Your task to perform on an android device: Search for razer blade on newegg, select the first entry, and add it to the cart. Image 0: 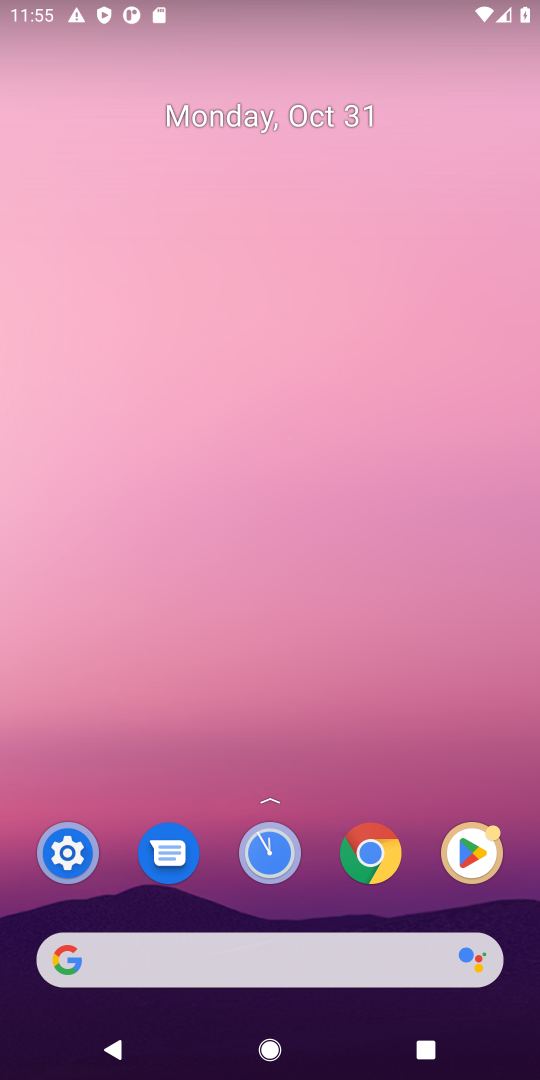
Step 0: click (224, 971)
Your task to perform on an android device: Search for razer blade on newegg, select the first entry, and add it to the cart. Image 1: 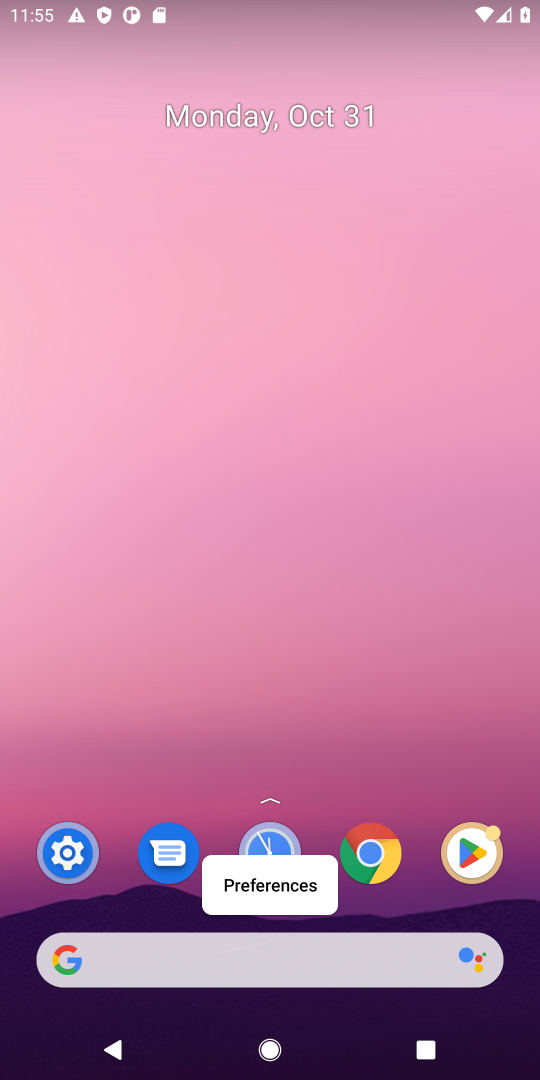
Step 1: click (224, 971)
Your task to perform on an android device: Search for razer blade on newegg, select the first entry, and add it to the cart. Image 2: 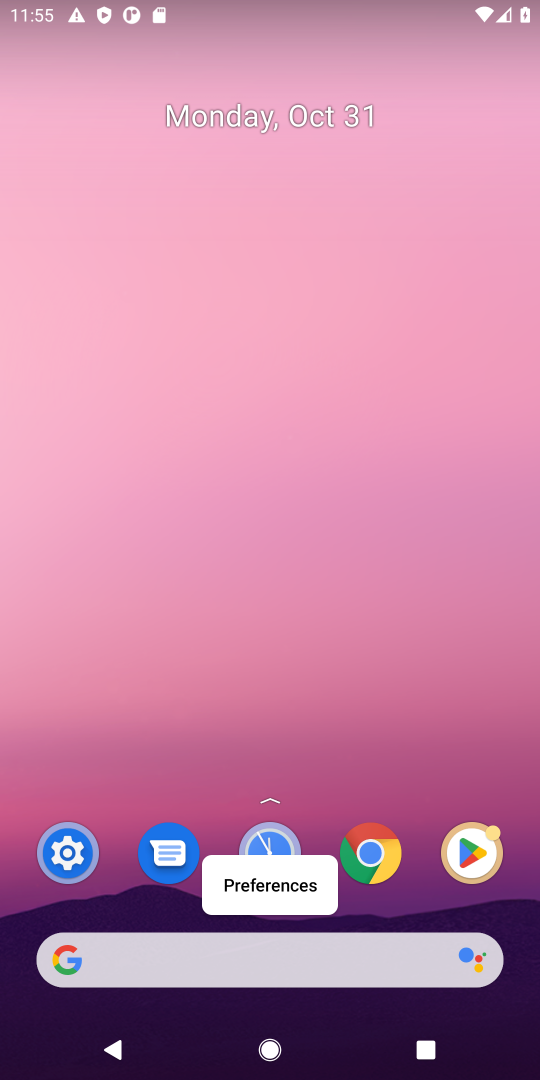
Step 2: click (224, 971)
Your task to perform on an android device: Search for razer blade on newegg, select the first entry, and add it to the cart. Image 3: 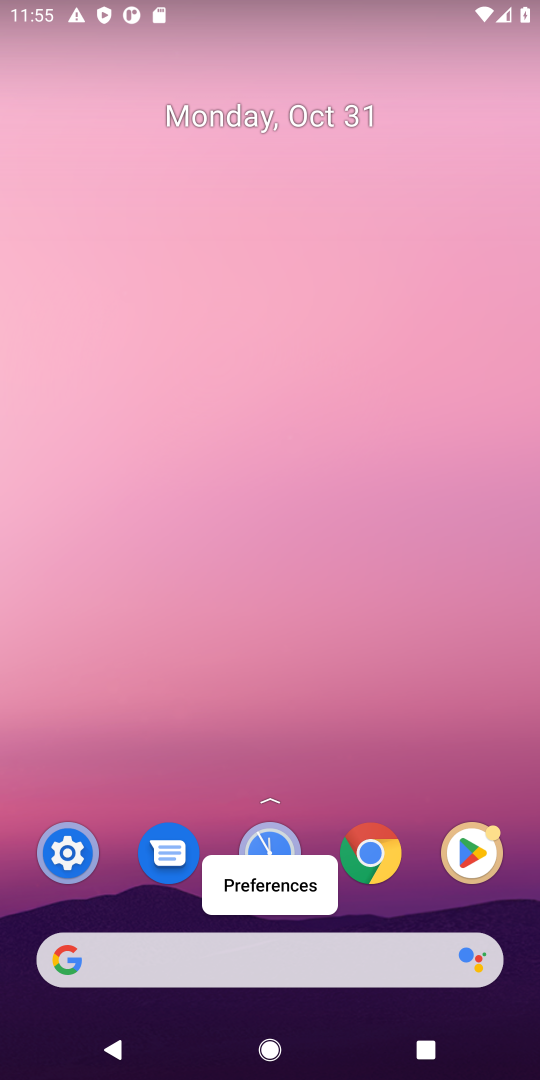
Step 3: click (224, 959)
Your task to perform on an android device: Search for razer blade on newegg, select the first entry, and add it to the cart. Image 4: 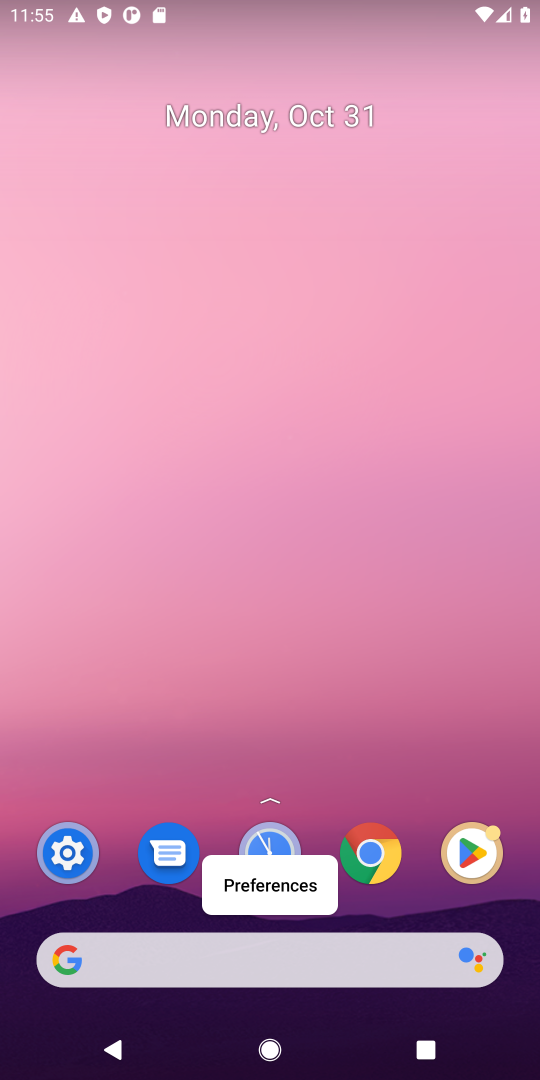
Step 4: click (224, 959)
Your task to perform on an android device: Search for razer blade on newegg, select the first entry, and add it to the cart. Image 5: 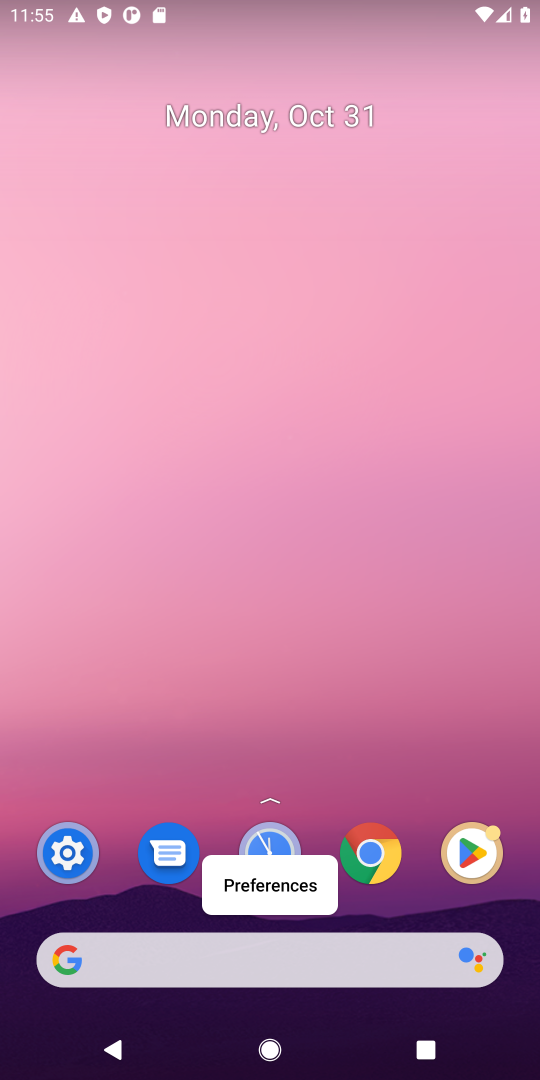
Step 5: click (226, 957)
Your task to perform on an android device: Search for razer blade on newegg, select the first entry, and add it to the cart. Image 6: 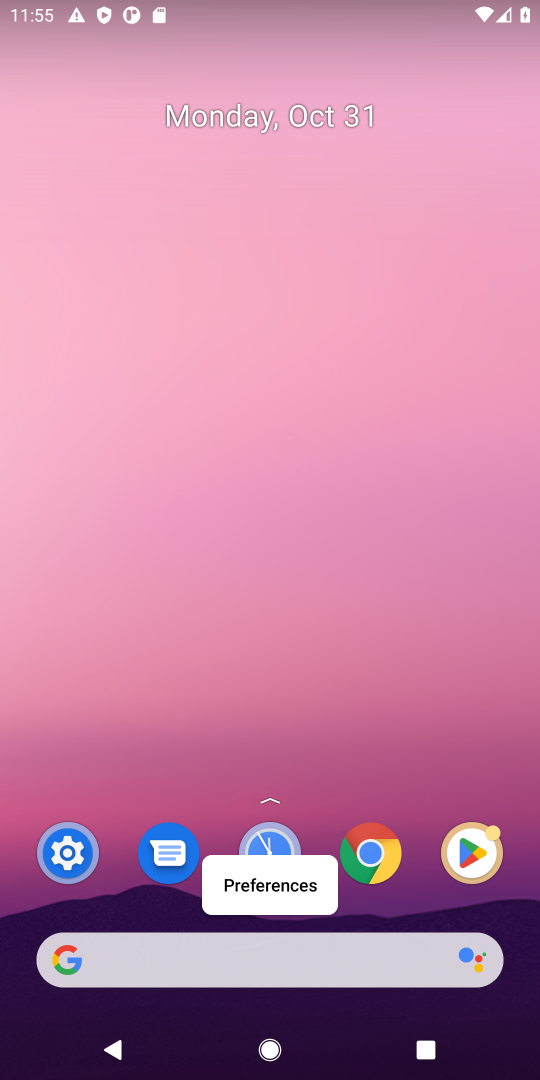
Step 6: click (160, 972)
Your task to perform on an android device: Search for razer blade on newegg, select the first entry, and add it to the cart. Image 7: 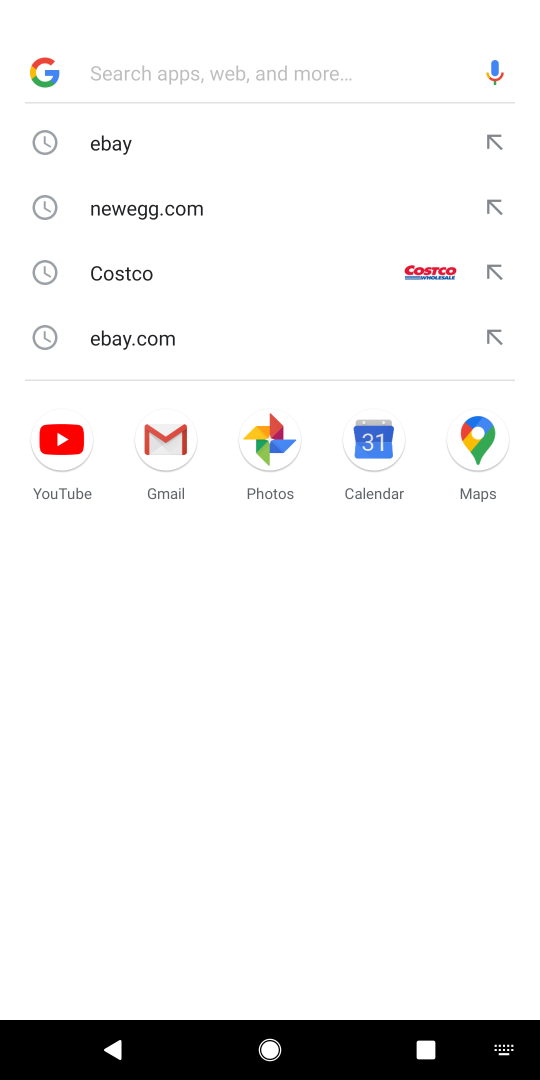
Step 7: click (139, 217)
Your task to perform on an android device: Search for razer blade on newegg, select the first entry, and add it to the cart. Image 8: 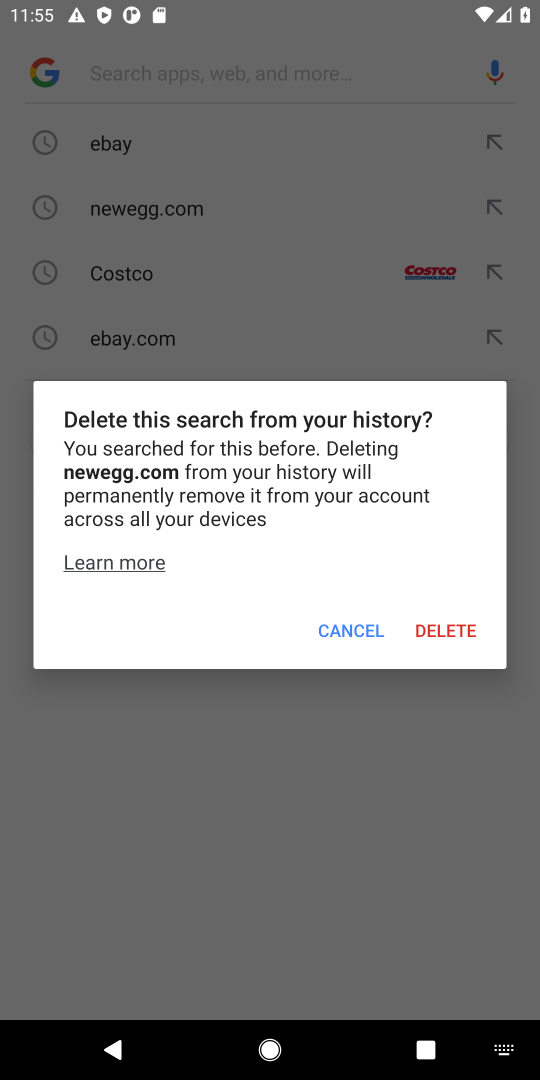
Step 8: click (357, 617)
Your task to perform on an android device: Search for razer blade on newegg, select the first entry, and add it to the cart. Image 9: 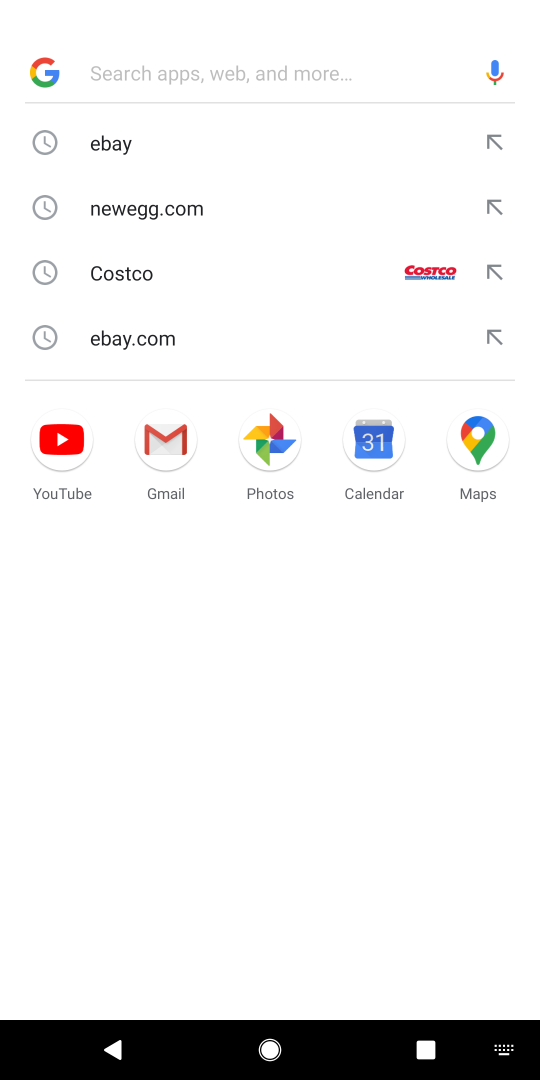
Step 9: click (178, 221)
Your task to perform on an android device: Search for razer blade on newegg, select the first entry, and add it to the cart. Image 10: 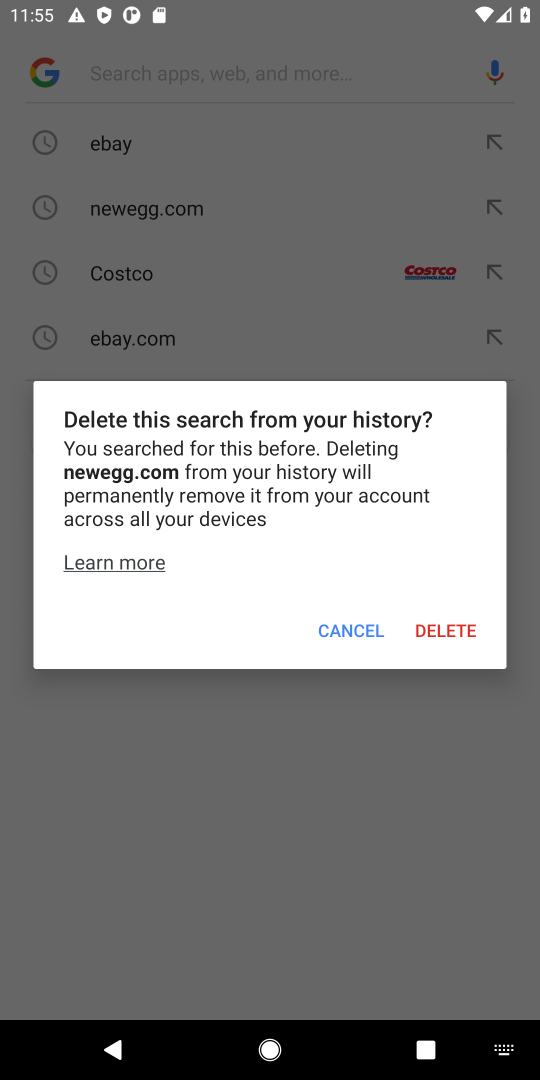
Step 10: click (160, 209)
Your task to perform on an android device: Search for razer blade on newegg, select the first entry, and add it to the cart. Image 11: 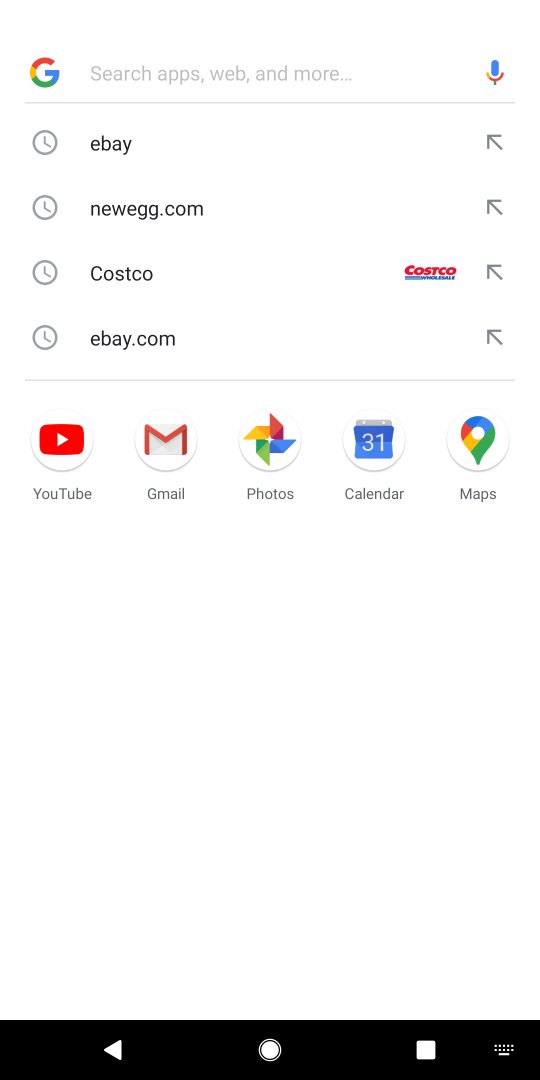
Step 11: click (160, 209)
Your task to perform on an android device: Search for razer blade on newegg, select the first entry, and add it to the cart. Image 12: 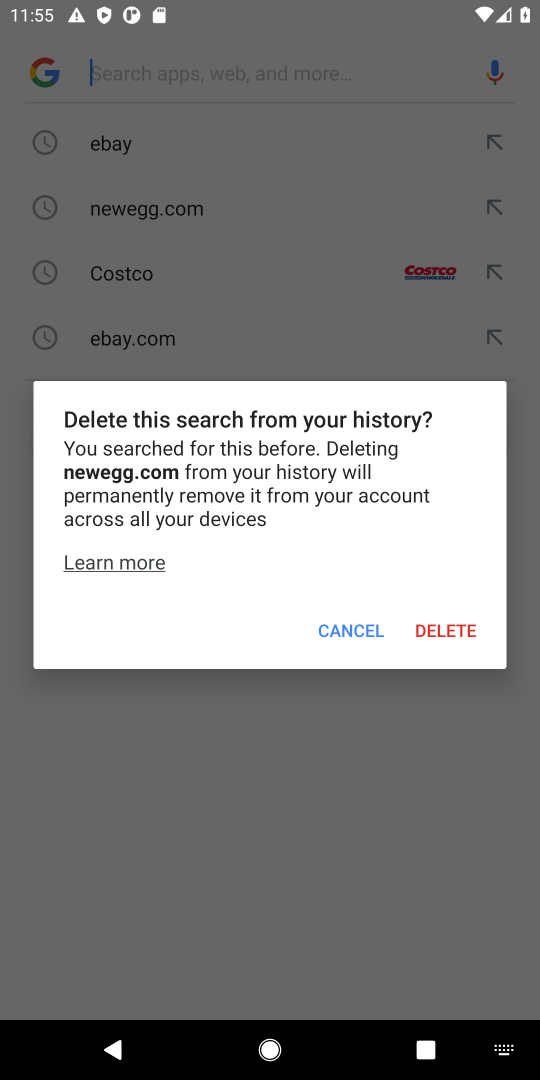
Step 12: click (341, 640)
Your task to perform on an android device: Search for razer blade on newegg, select the first entry, and add it to the cart. Image 13: 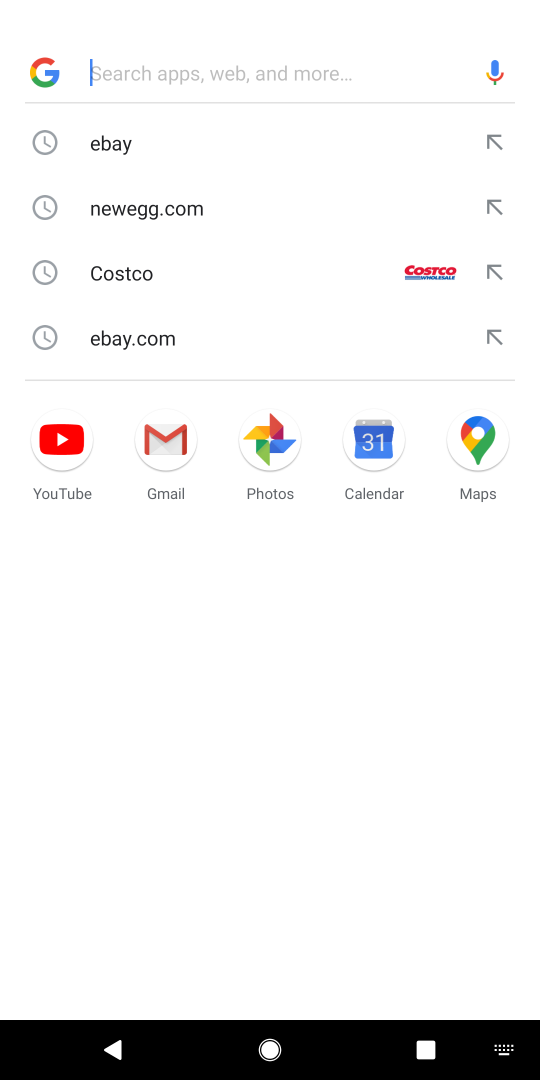
Step 13: click (46, 206)
Your task to perform on an android device: Search for razer blade on newegg, select the first entry, and add it to the cart. Image 14: 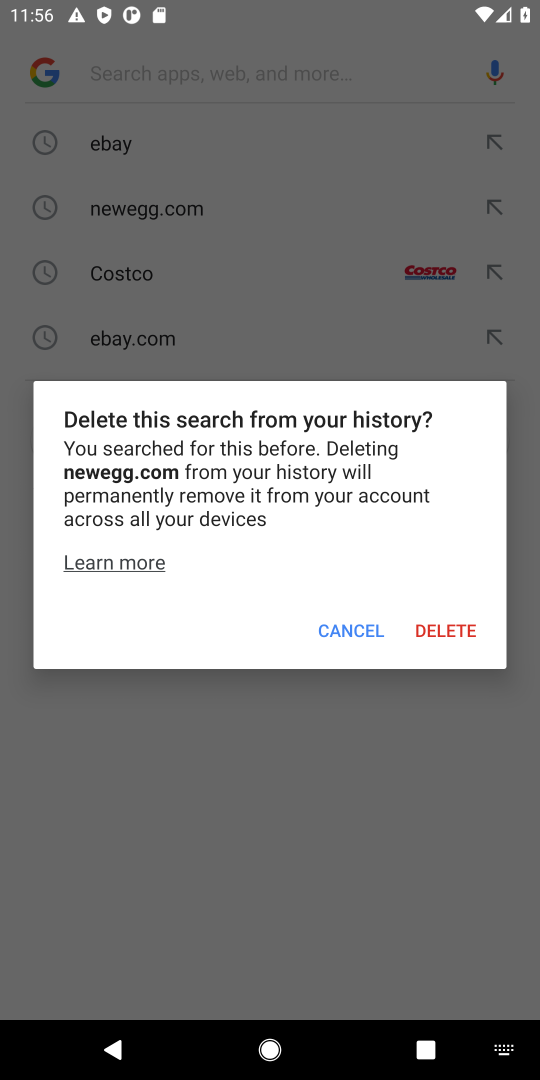
Step 14: drag from (351, 620) to (346, 535)
Your task to perform on an android device: Search for razer blade on newegg, select the first entry, and add it to the cart. Image 15: 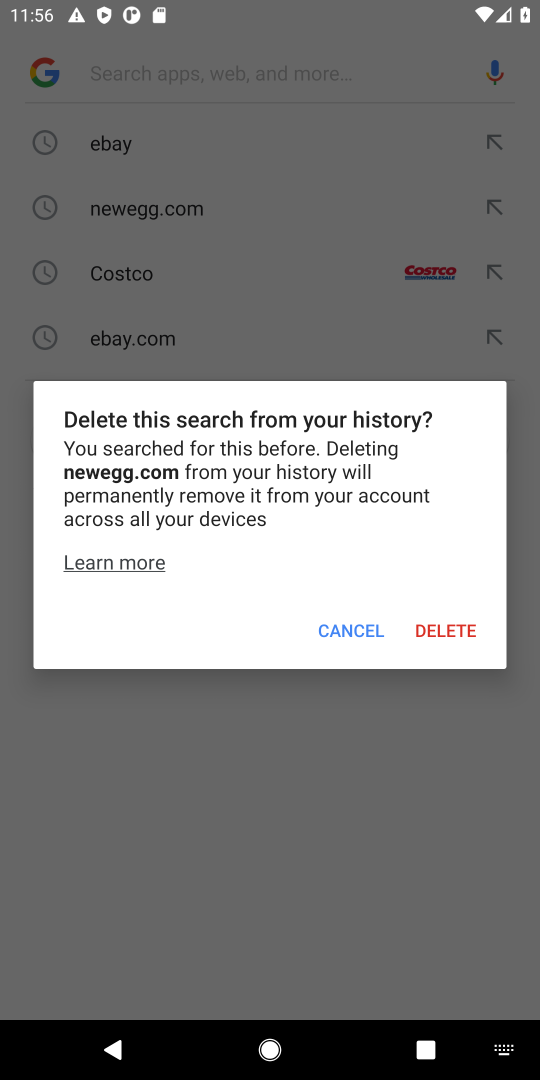
Step 15: click (366, 615)
Your task to perform on an android device: Search for razer blade on newegg, select the first entry, and add it to the cart. Image 16: 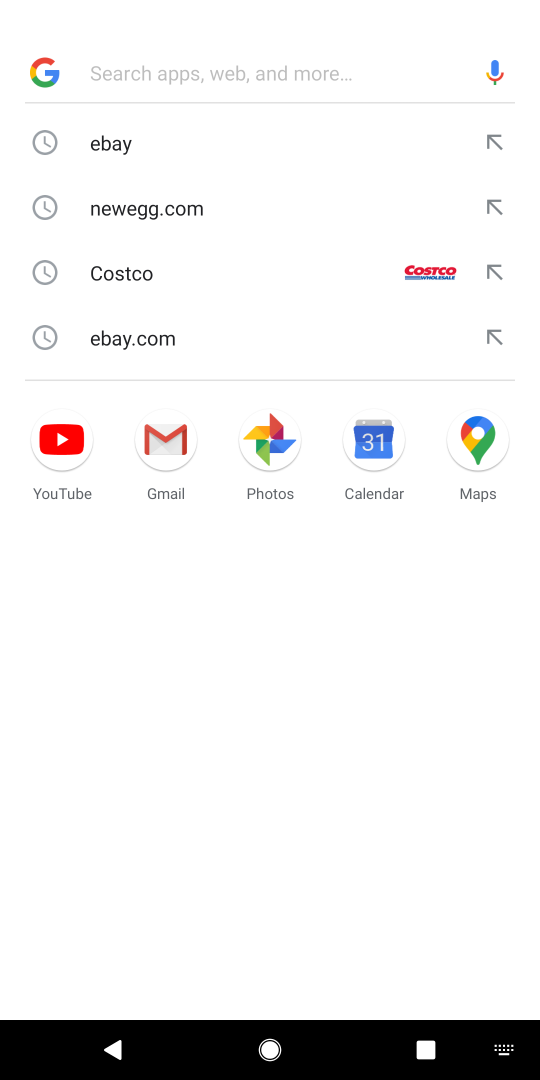
Step 16: click (501, 211)
Your task to perform on an android device: Search for razer blade on newegg, select the first entry, and add it to the cart. Image 17: 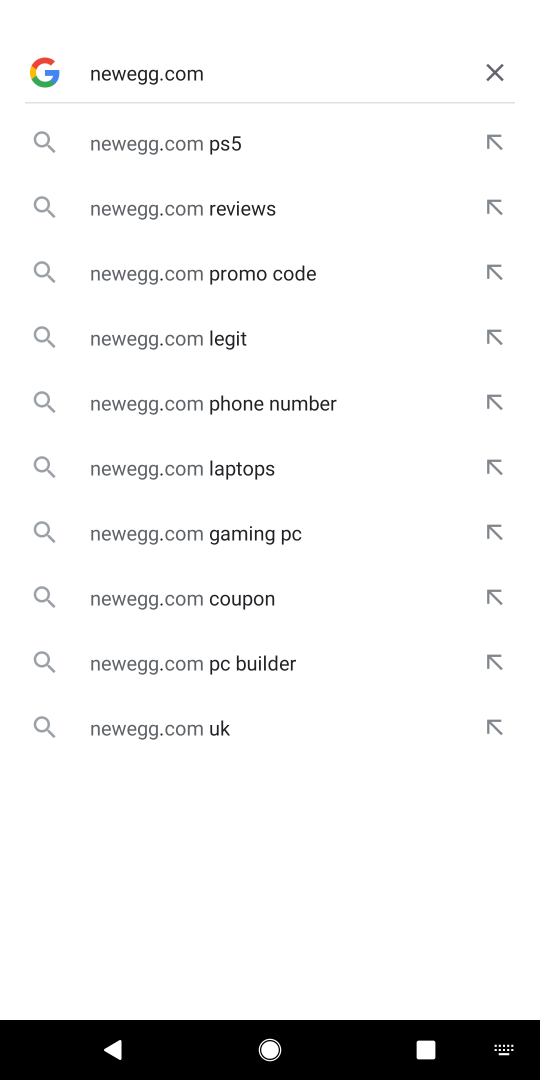
Step 17: press enter
Your task to perform on an android device: Search for razer blade on newegg, select the first entry, and add it to the cart. Image 18: 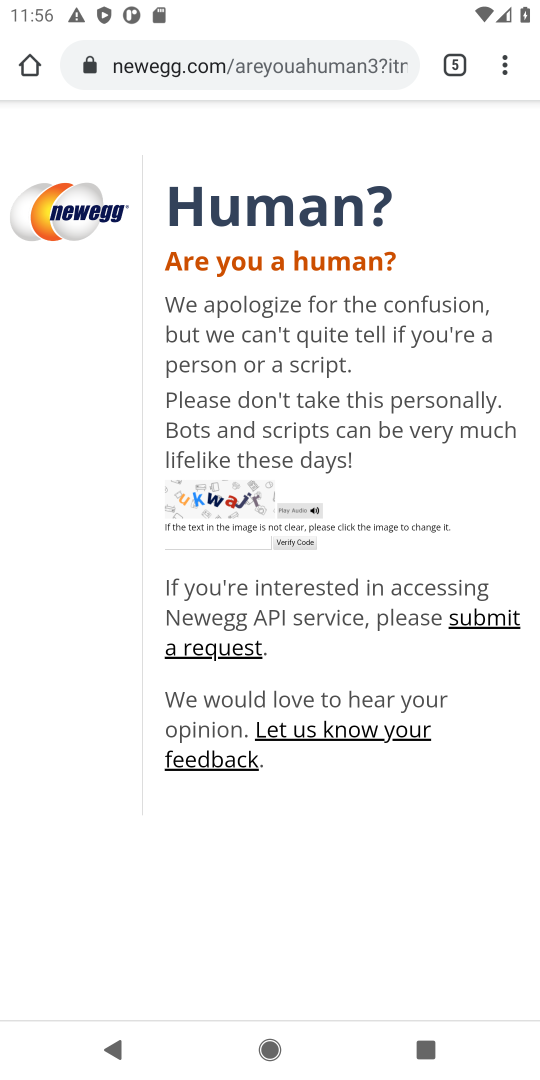
Step 18: task complete